Your task to perform on an android device: Go to ESPN.com Image 0: 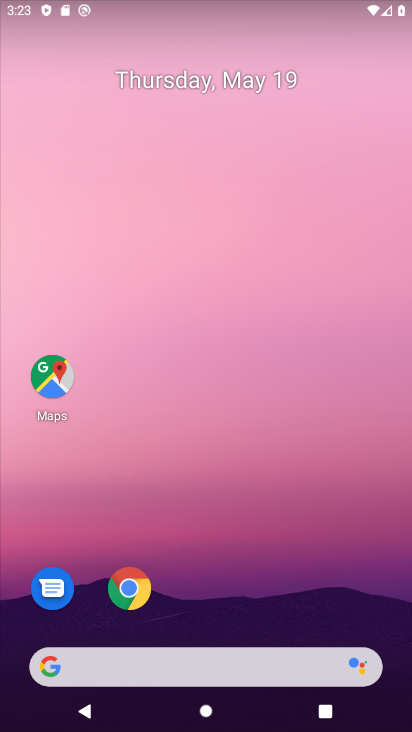
Step 0: drag from (288, 686) to (261, 166)
Your task to perform on an android device: Go to ESPN.com Image 1: 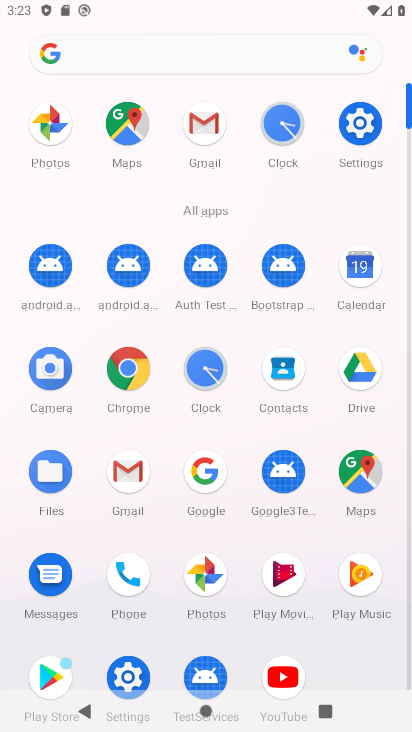
Step 1: click (130, 375)
Your task to perform on an android device: Go to ESPN.com Image 2: 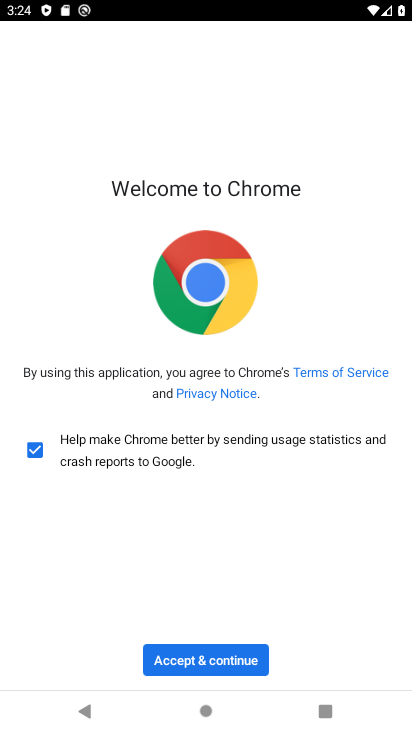
Step 2: click (206, 661)
Your task to perform on an android device: Go to ESPN.com Image 3: 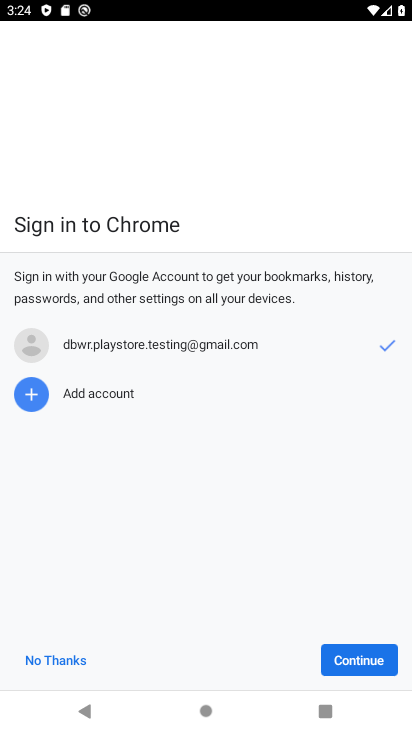
Step 3: click (354, 666)
Your task to perform on an android device: Go to ESPN.com Image 4: 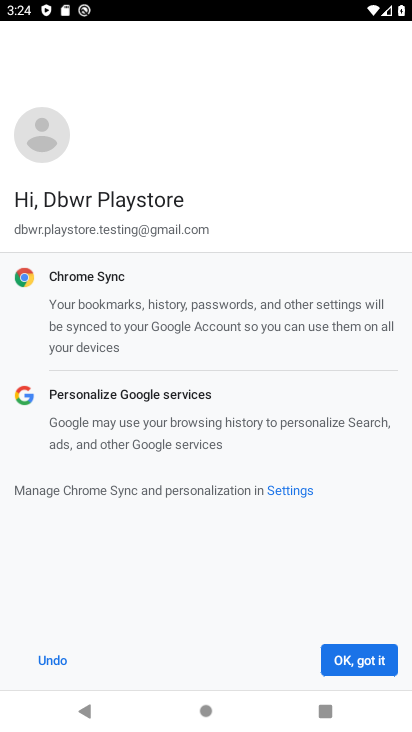
Step 4: click (360, 659)
Your task to perform on an android device: Go to ESPN.com Image 5: 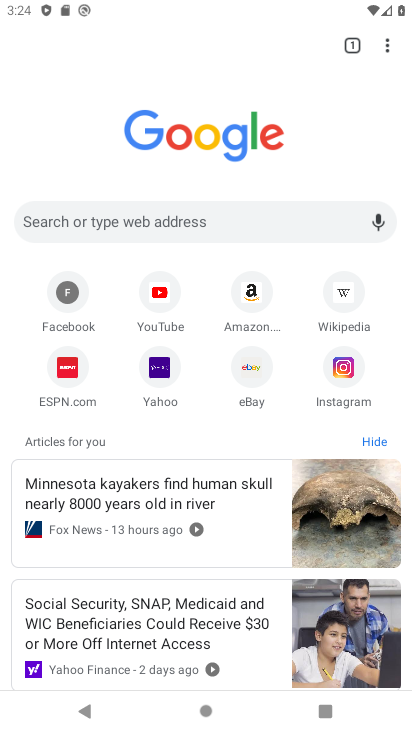
Step 5: click (64, 377)
Your task to perform on an android device: Go to ESPN.com Image 6: 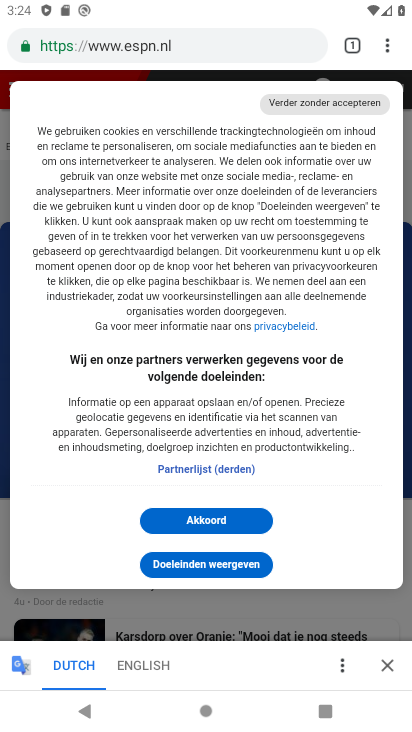
Step 6: click (191, 521)
Your task to perform on an android device: Go to ESPN.com Image 7: 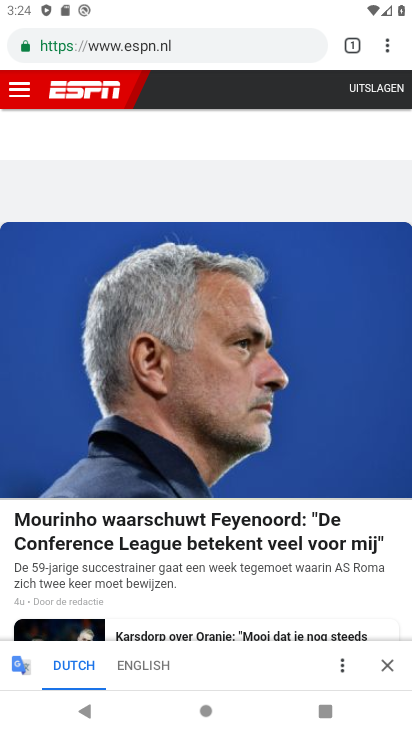
Step 7: task complete